Your task to perform on an android device: open a bookmark in the chrome app Image 0: 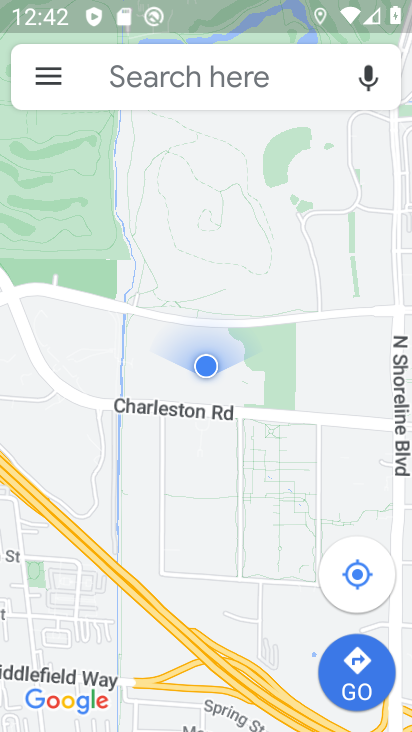
Step 0: press back button
Your task to perform on an android device: open a bookmark in the chrome app Image 1: 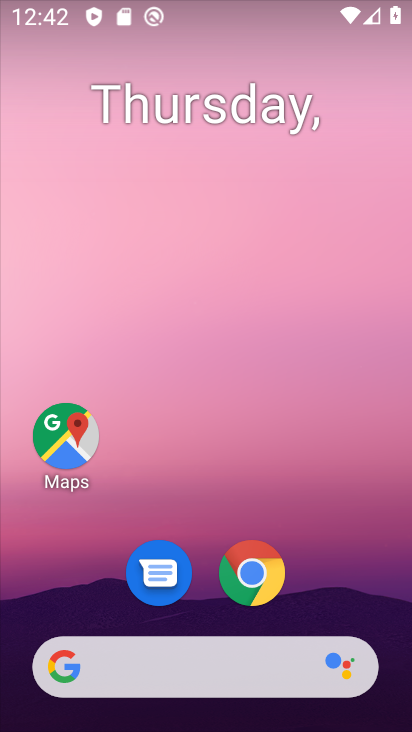
Step 1: click (252, 558)
Your task to perform on an android device: open a bookmark in the chrome app Image 2: 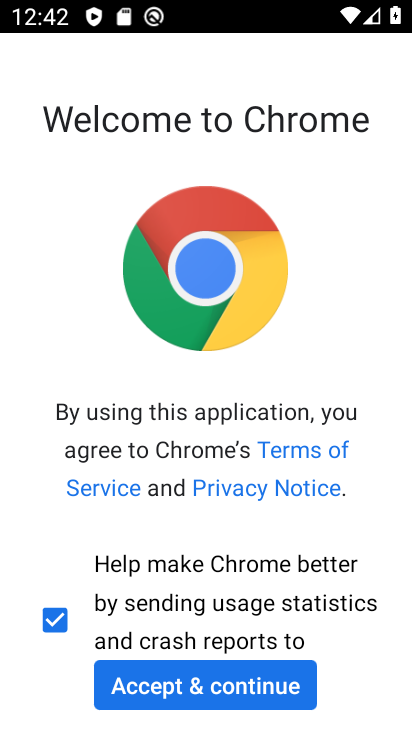
Step 2: click (164, 685)
Your task to perform on an android device: open a bookmark in the chrome app Image 3: 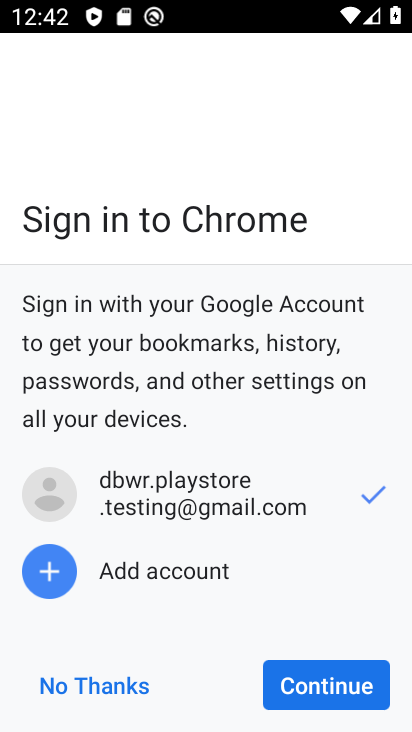
Step 3: click (316, 682)
Your task to perform on an android device: open a bookmark in the chrome app Image 4: 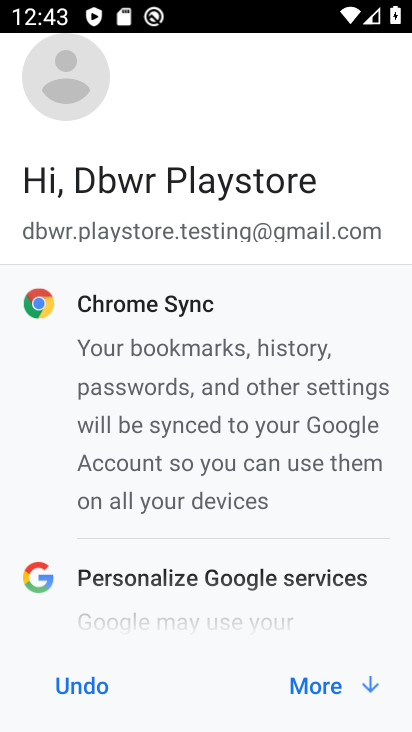
Step 4: click (319, 682)
Your task to perform on an android device: open a bookmark in the chrome app Image 5: 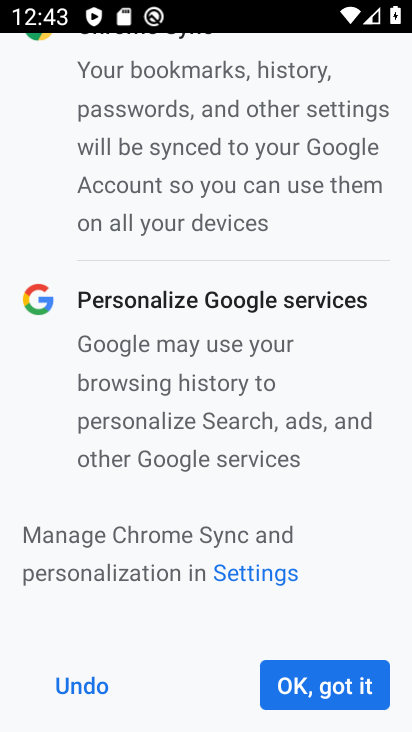
Step 5: click (316, 680)
Your task to perform on an android device: open a bookmark in the chrome app Image 6: 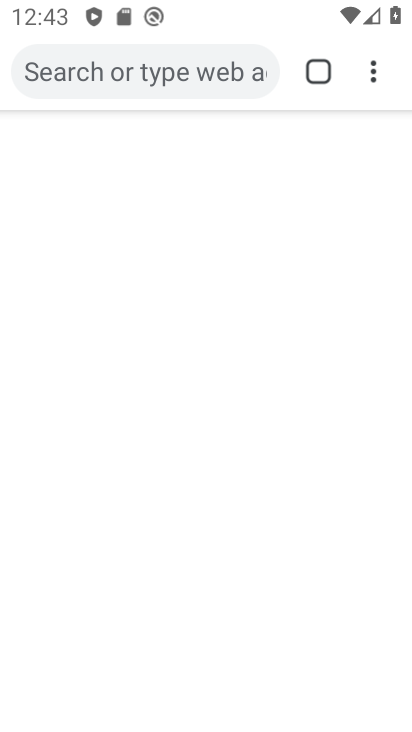
Step 6: task complete